Your task to perform on an android device: Search for seafood restaurants on Google Maps Image 0: 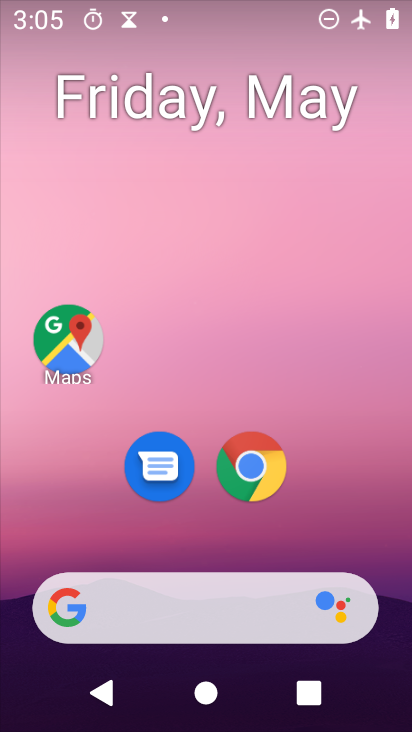
Step 0: drag from (348, 464) to (315, 0)
Your task to perform on an android device: Search for seafood restaurants on Google Maps Image 1: 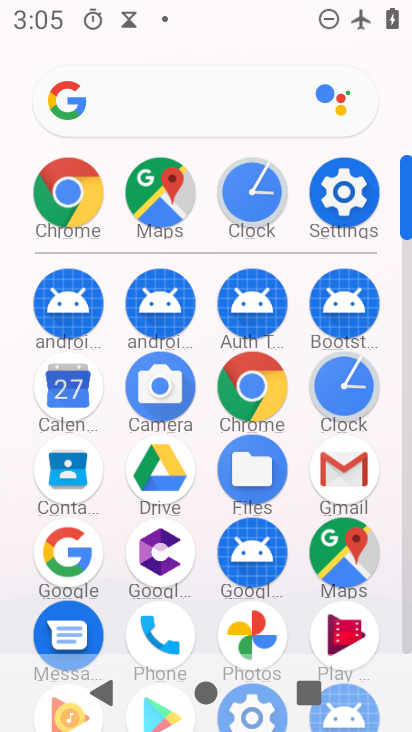
Step 1: click (352, 550)
Your task to perform on an android device: Search for seafood restaurants on Google Maps Image 2: 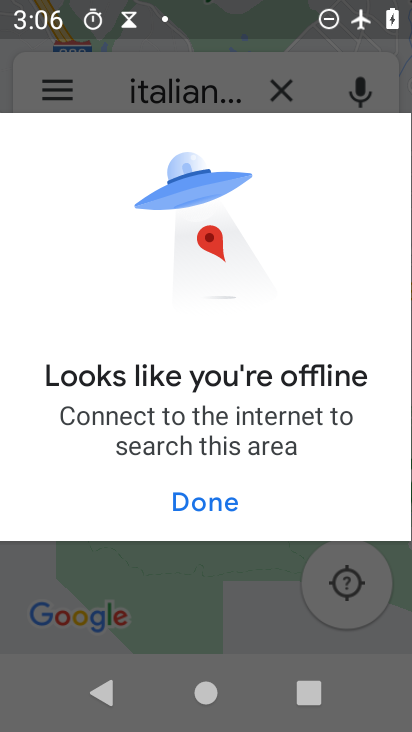
Step 2: click (226, 499)
Your task to perform on an android device: Search for seafood restaurants on Google Maps Image 3: 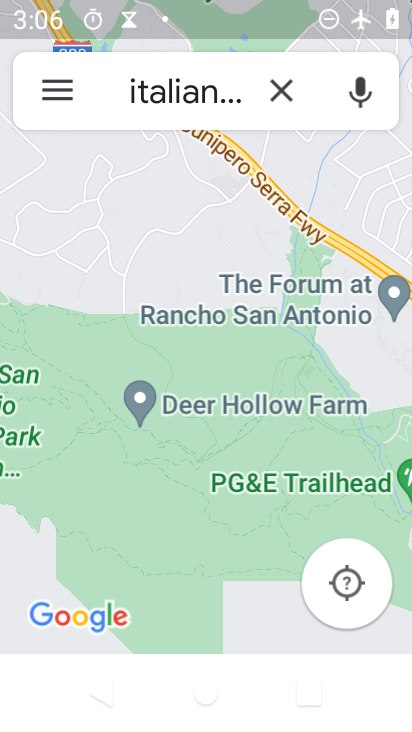
Step 3: click (288, 88)
Your task to perform on an android device: Search for seafood restaurants on Google Maps Image 4: 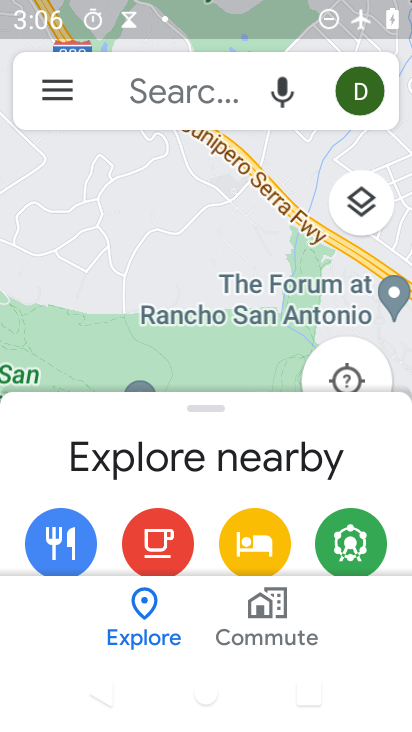
Step 4: type "Seafood resturents"
Your task to perform on an android device: Search for seafood restaurants on Google Maps Image 5: 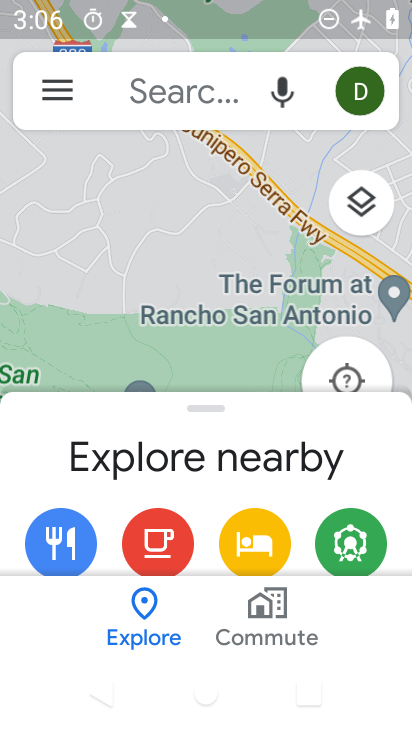
Step 5: task complete